Your task to perform on an android device: open app "Microsoft Outlook" Image 0: 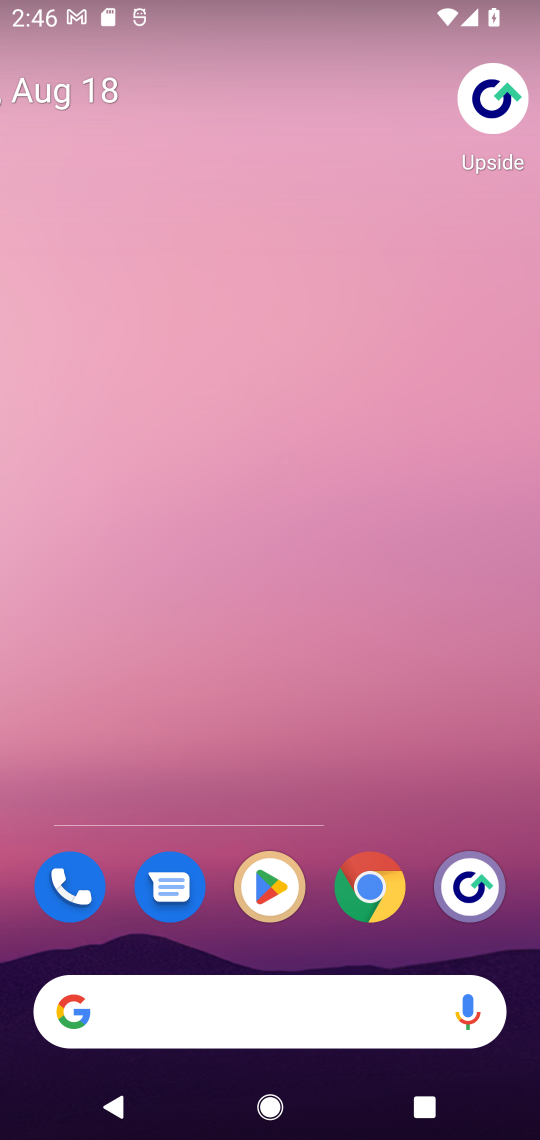
Step 0: press home button
Your task to perform on an android device: open app "Microsoft Outlook" Image 1: 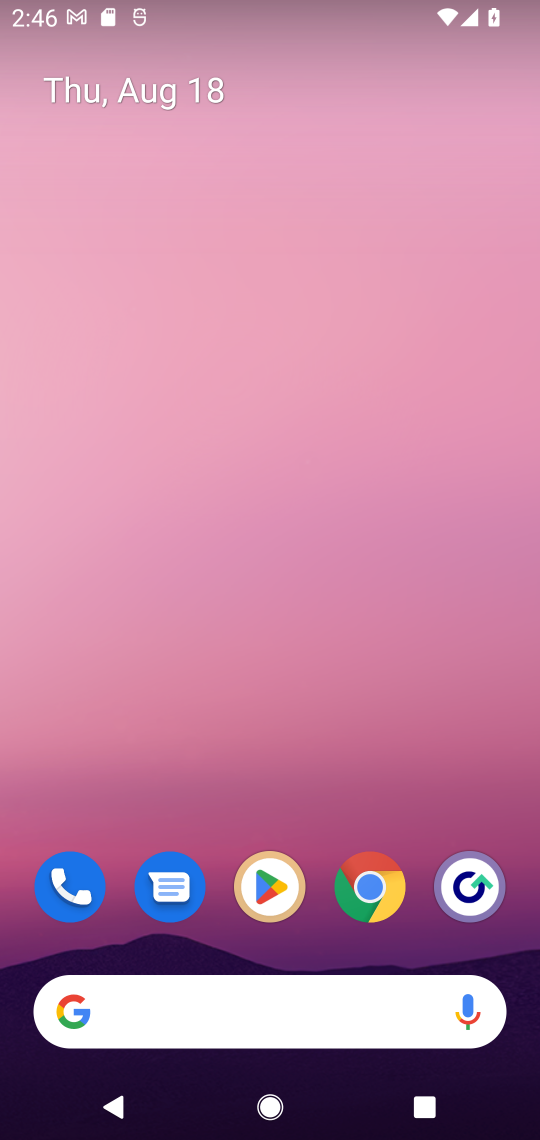
Step 1: click (264, 872)
Your task to perform on an android device: open app "Microsoft Outlook" Image 2: 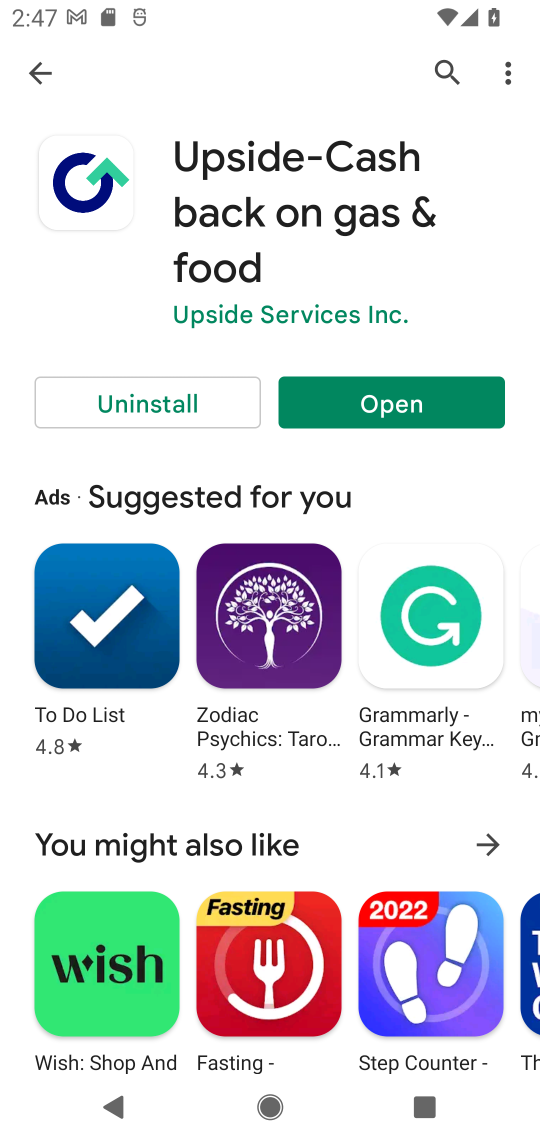
Step 2: click (41, 77)
Your task to perform on an android device: open app "Microsoft Outlook" Image 3: 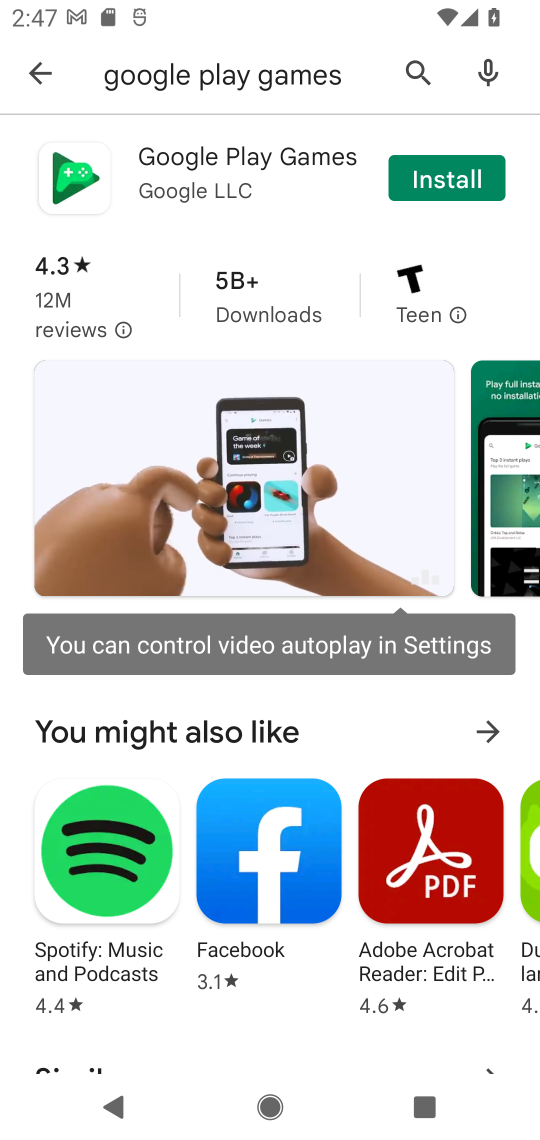
Step 3: click (401, 77)
Your task to perform on an android device: open app "Microsoft Outlook" Image 4: 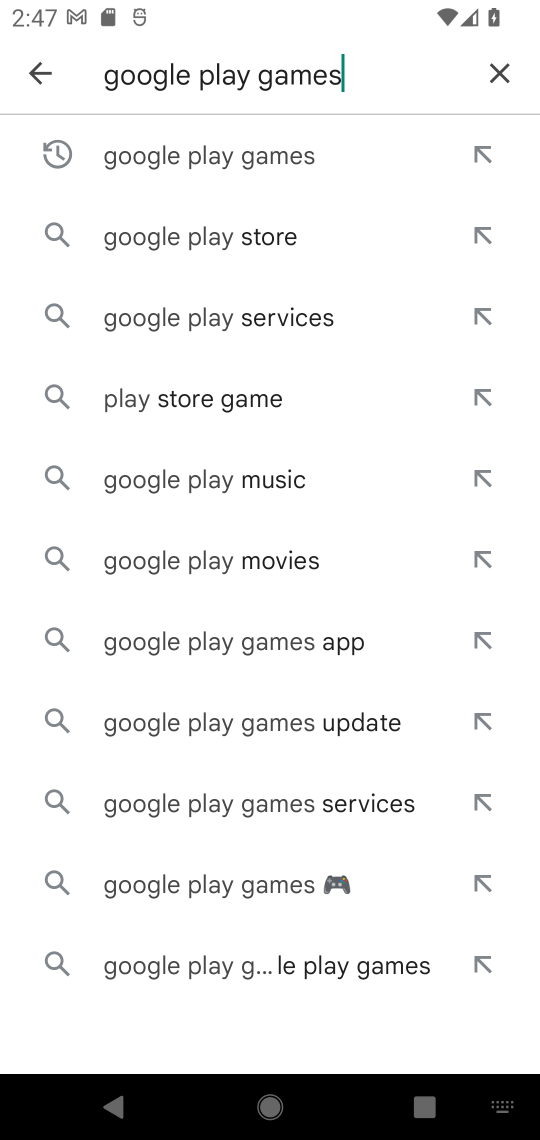
Step 4: click (498, 75)
Your task to perform on an android device: open app "Microsoft Outlook" Image 5: 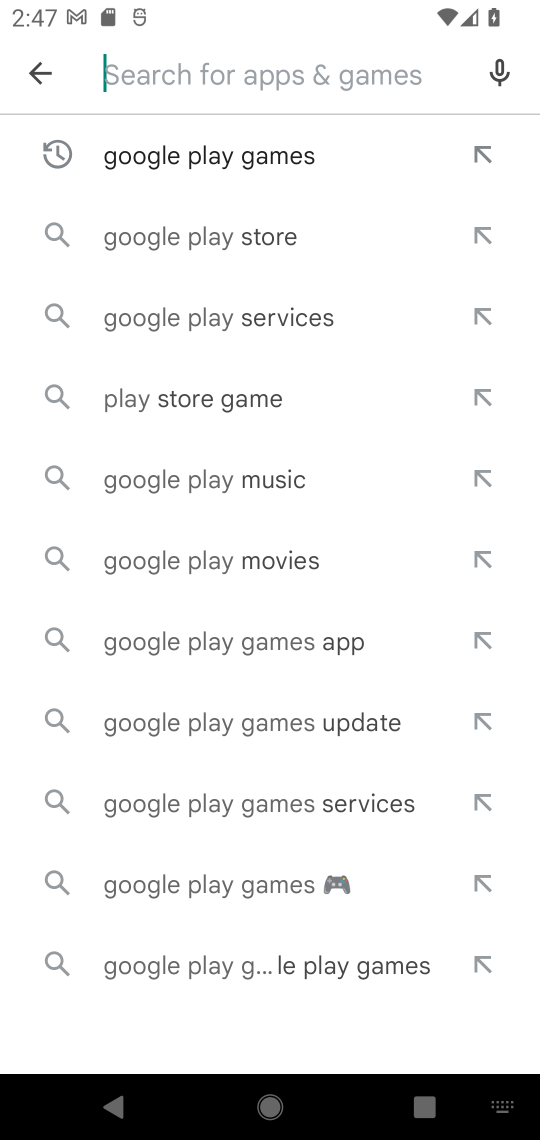
Step 5: click (498, 77)
Your task to perform on an android device: open app "Microsoft Outlook" Image 6: 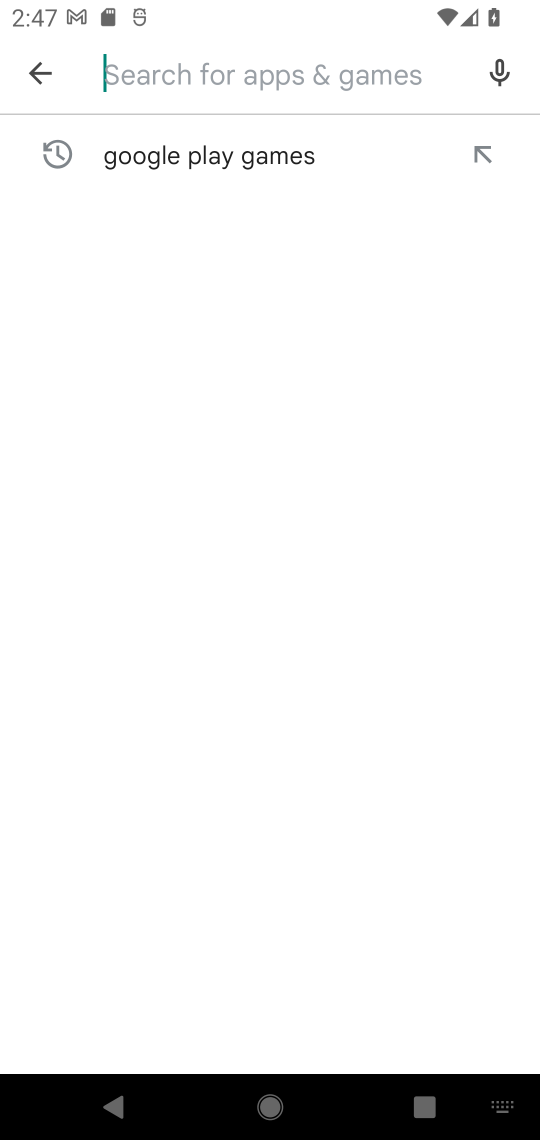
Step 6: click (507, 70)
Your task to perform on an android device: open app "Microsoft Outlook" Image 7: 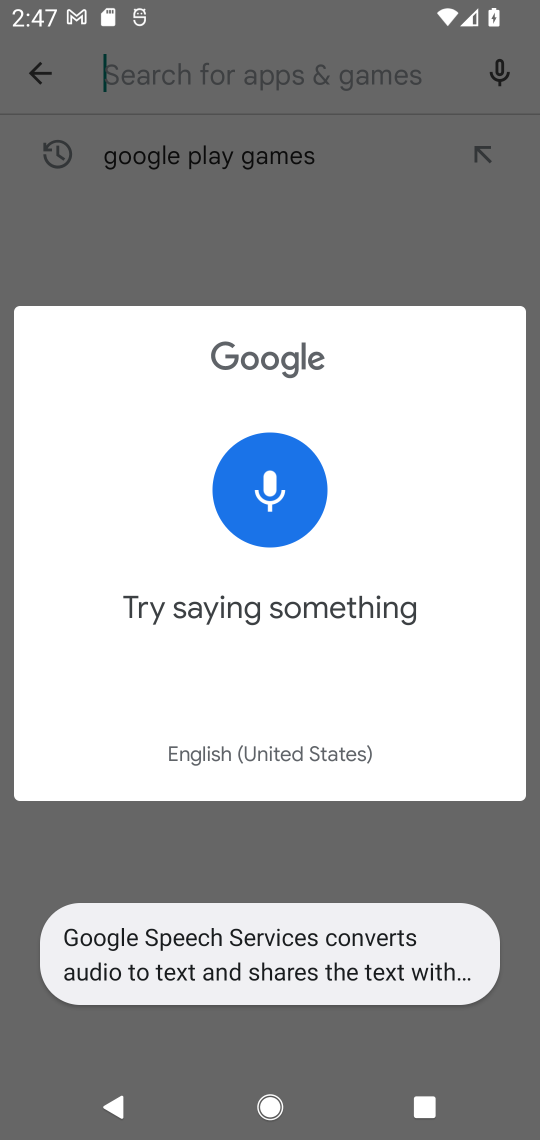
Step 7: click (180, 250)
Your task to perform on an android device: open app "Microsoft Outlook" Image 8: 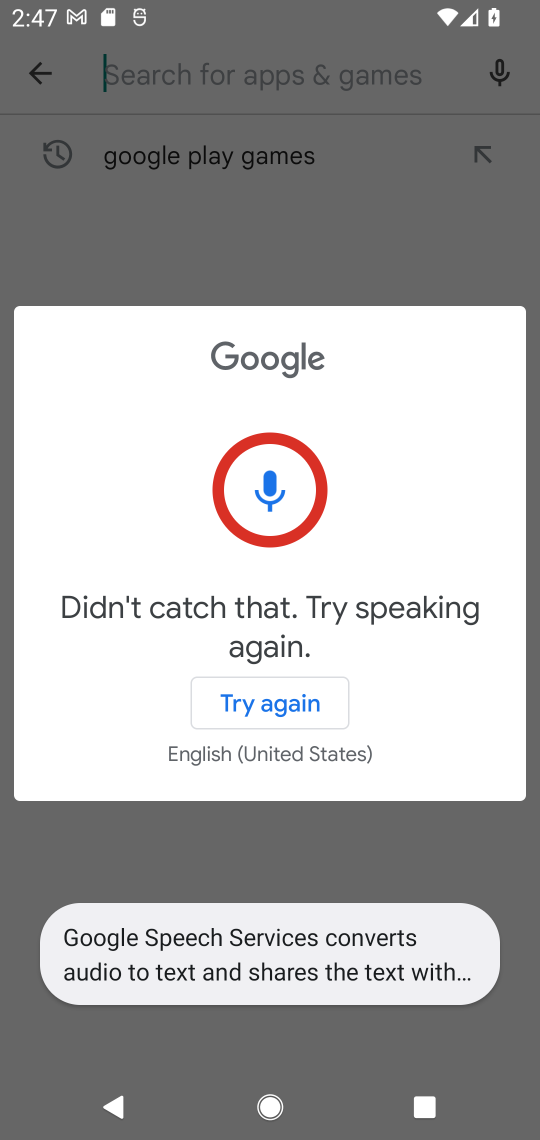
Step 8: press back button
Your task to perform on an android device: open app "Microsoft Outlook" Image 9: 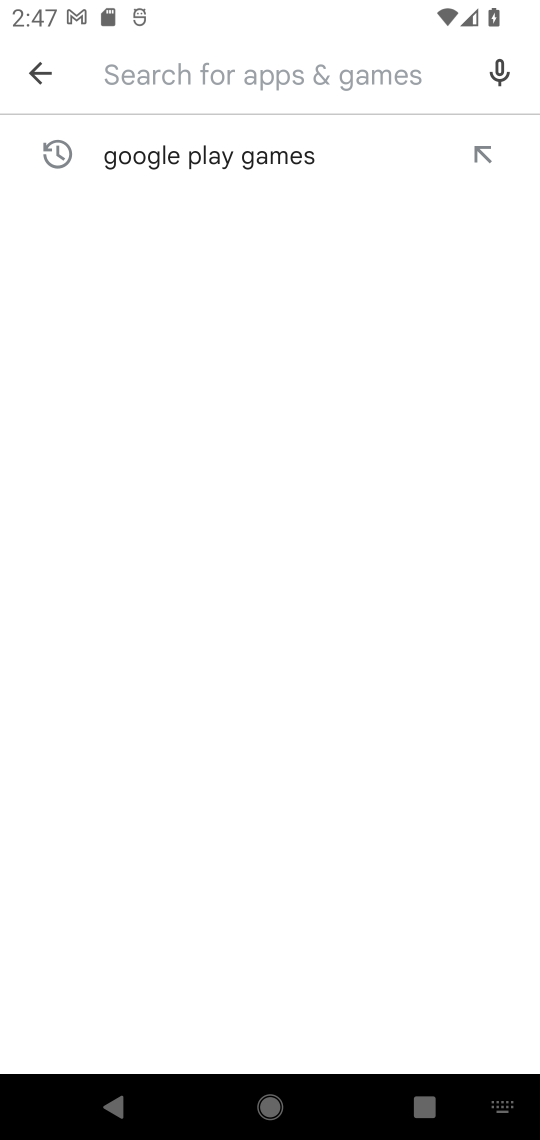
Step 9: type "Microsoft Outlook"
Your task to perform on an android device: open app "Microsoft Outlook" Image 10: 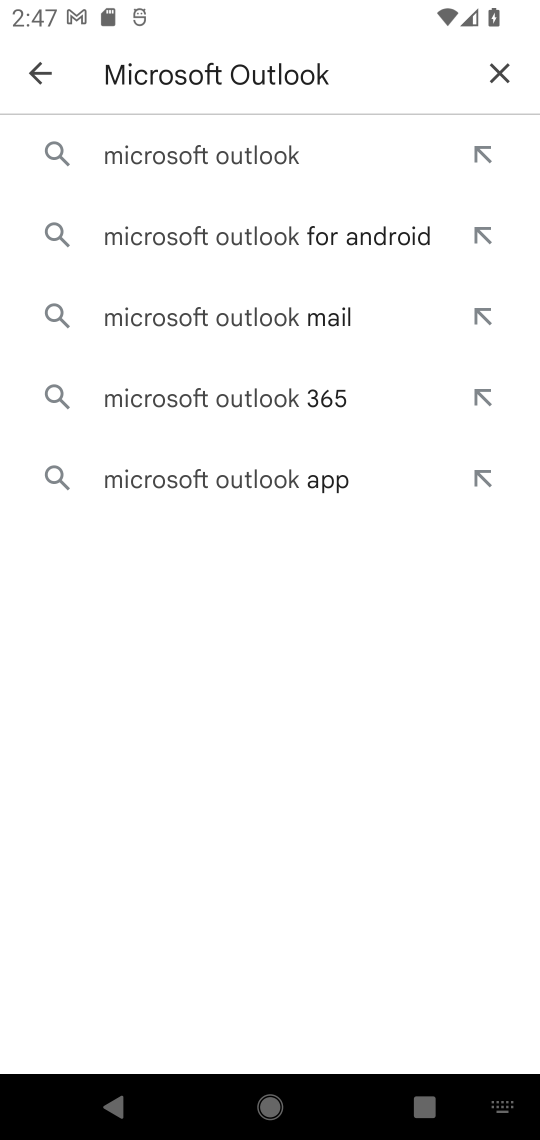
Step 10: click (167, 144)
Your task to perform on an android device: open app "Microsoft Outlook" Image 11: 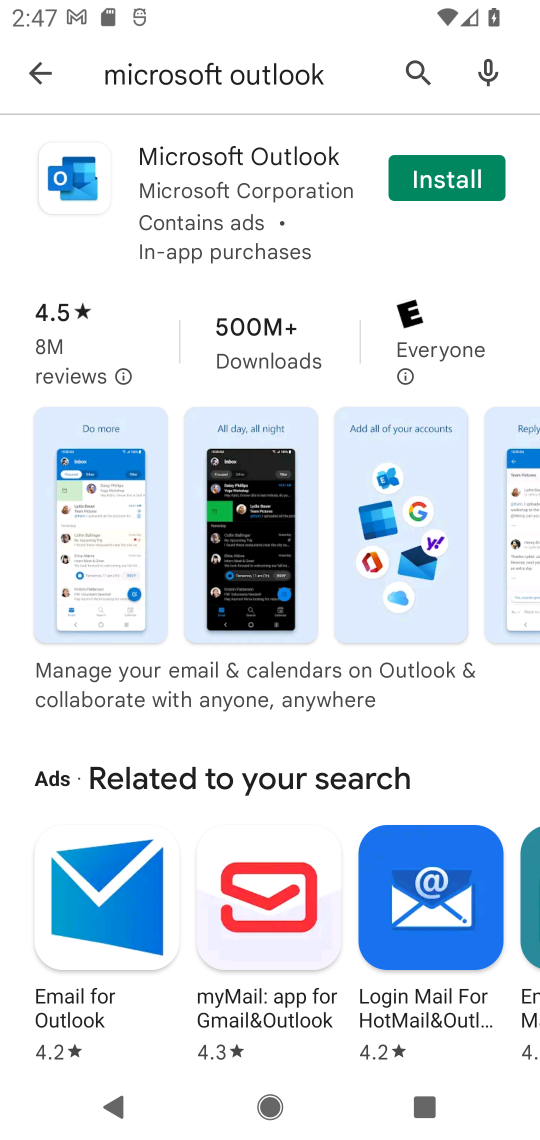
Step 11: task complete